Your task to perform on an android device: turn off location Image 0: 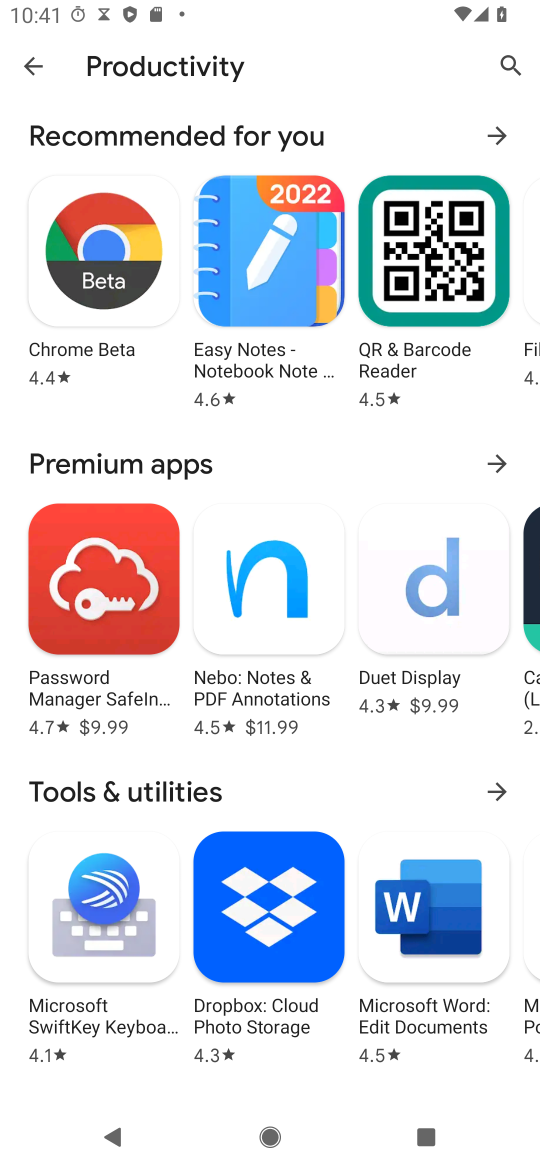
Step 0: press home button
Your task to perform on an android device: turn off location Image 1: 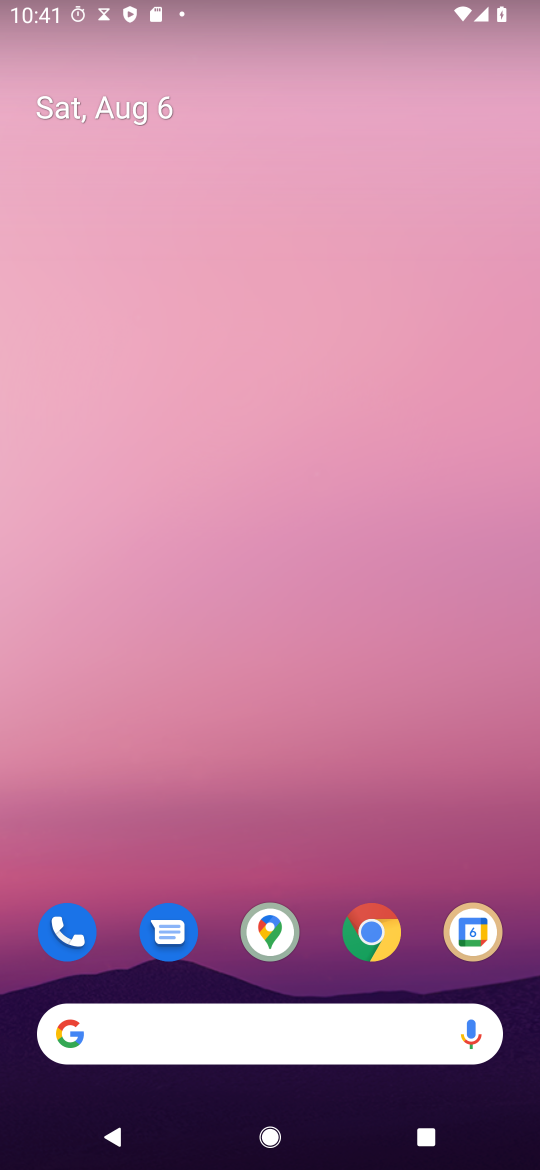
Step 1: drag from (193, 1021) to (226, 251)
Your task to perform on an android device: turn off location Image 2: 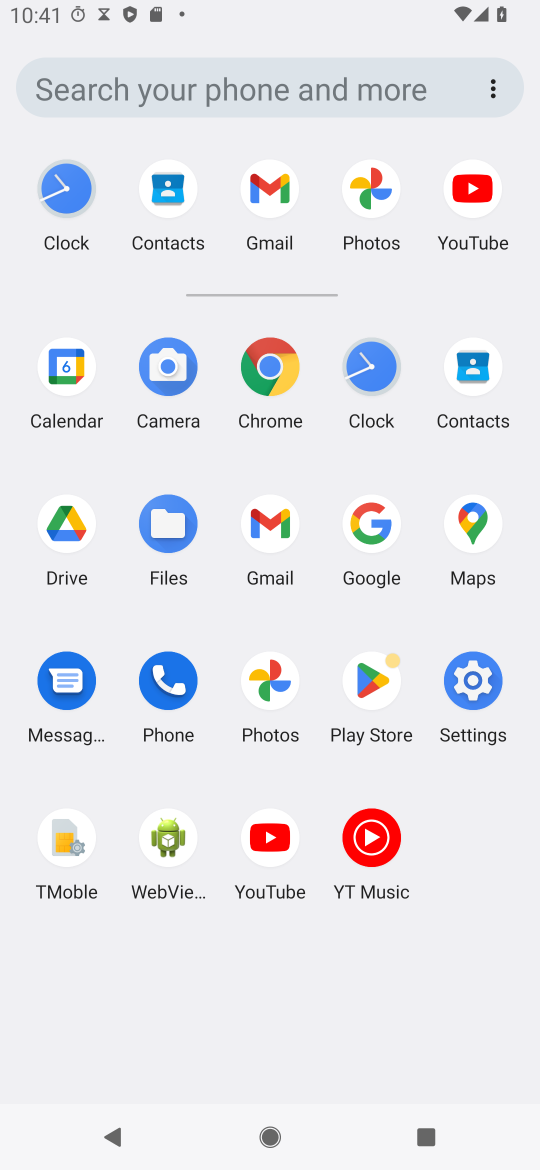
Step 2: click (475, 680)
Your task to perform on an android device: turn off location Image 3: 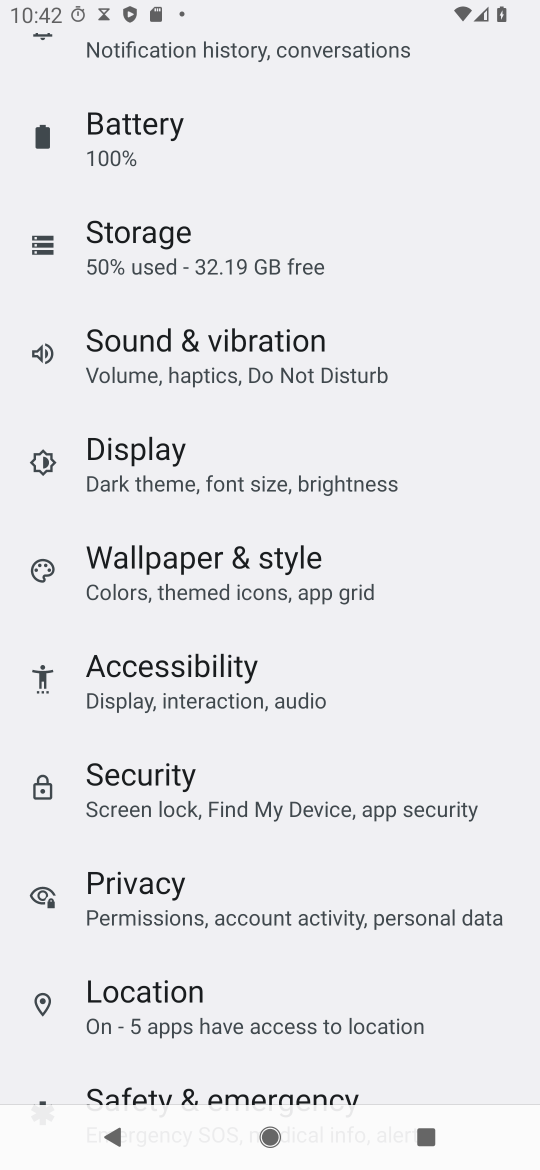
Step 3: drag from (213, 819) to (298, 665)
Your task to perform on an android device: turn off location Image 4: 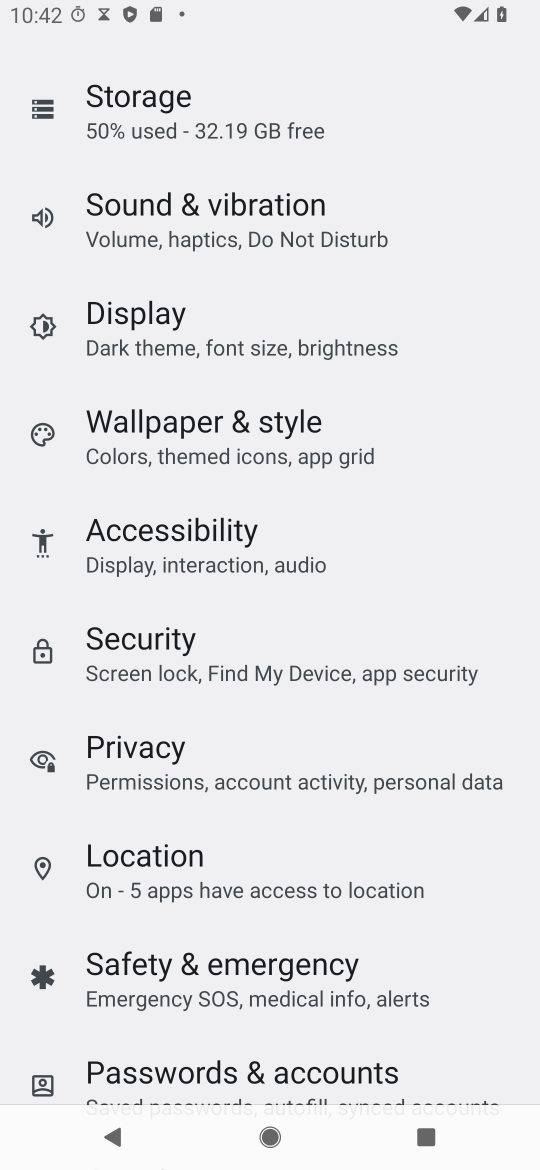
Step 4: click (205, 856)
Your task to perform on an android device: turn off location Image 5: 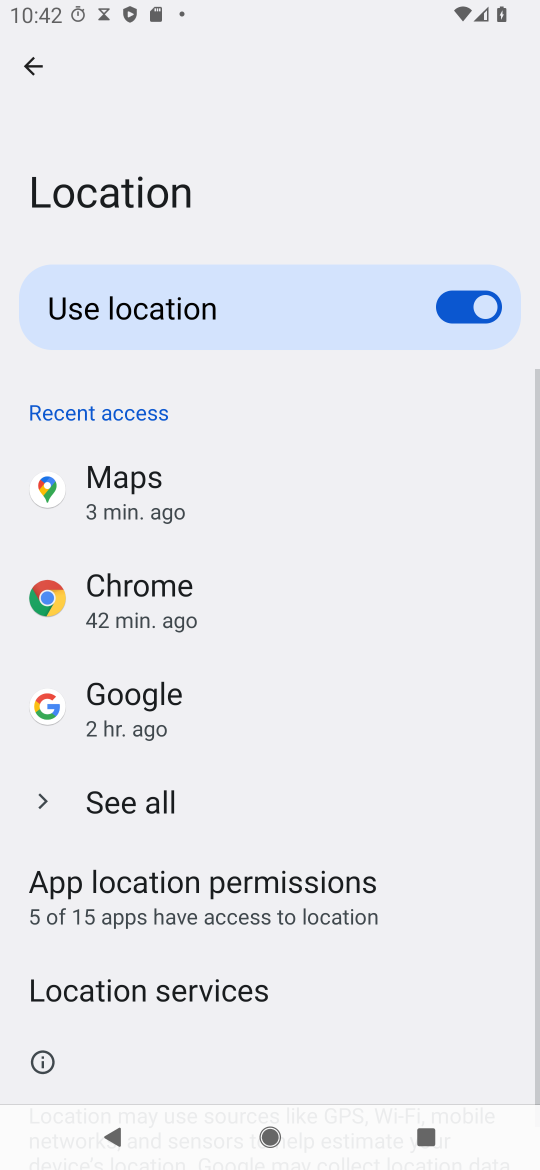
Step 5: click (435, 302)
Your task to perform on an android device: turn off location Image 6: 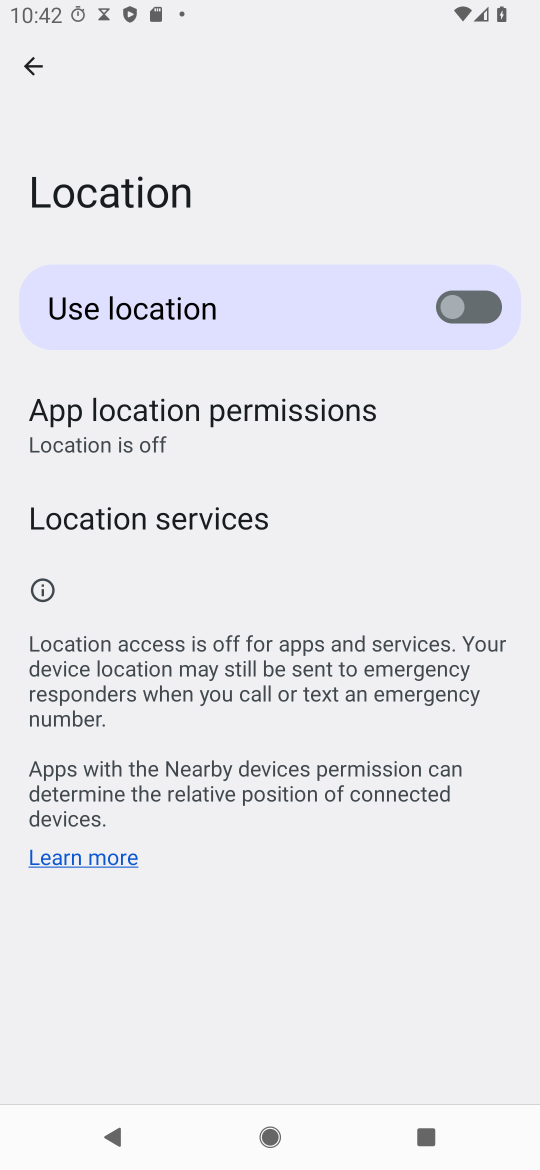
Step 6: task complete